Your task to perform on an android device: Open network settings Image 0: 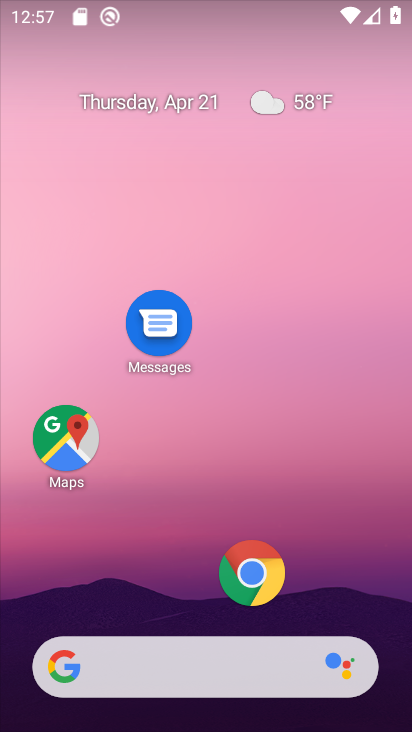
Step 0: drag from (173, 564) to (184, 89)
Your task to perform on an android device: Open network settings Image 1: 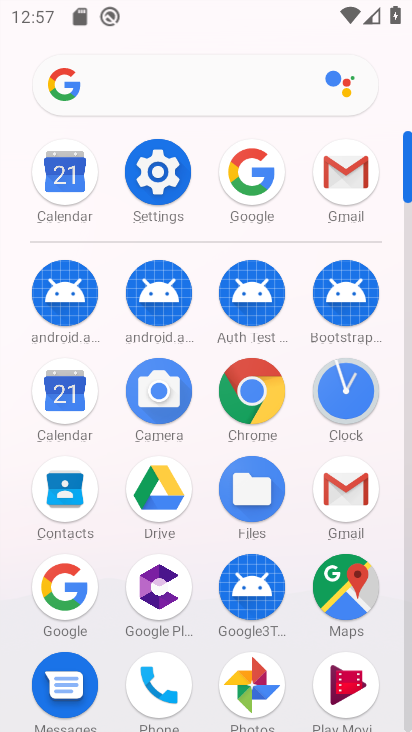
Step 1: click (161, 169)
Your task to perform on an android device: Open network settings Image 2: 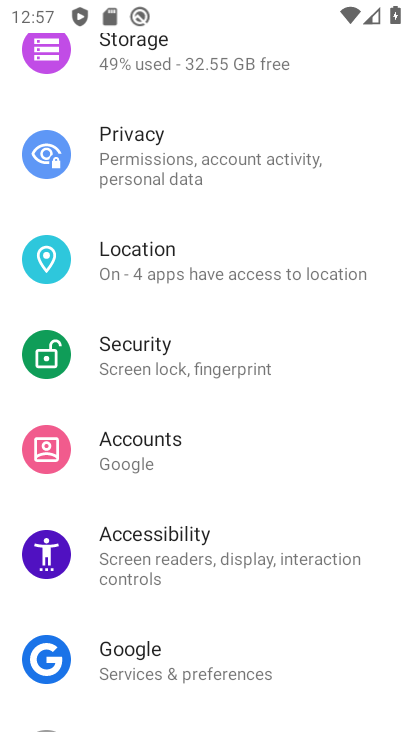
Step 2: drag from (186, 151) to (290, 715)
Your task to perform on an android device: Open network settings Image 3: 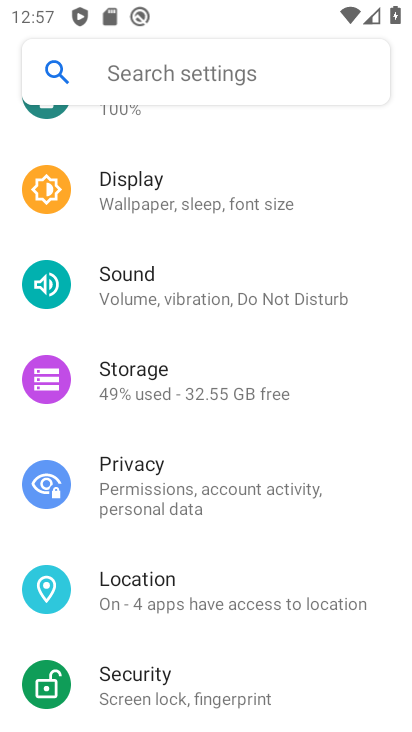
Step 3: drag from (214, 198) to (223, 711)
Your task to perform on an android device: Open network settings Image 4: 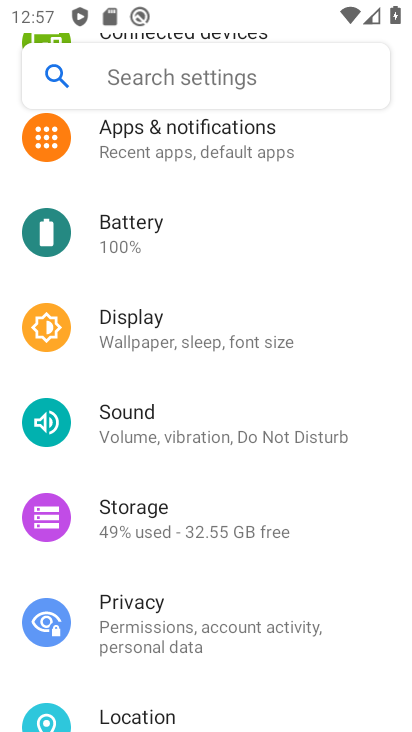
Step 4: drag from (161, 213) to (238, 711)
Your task to perform on an android device: Open network settings Image 5: 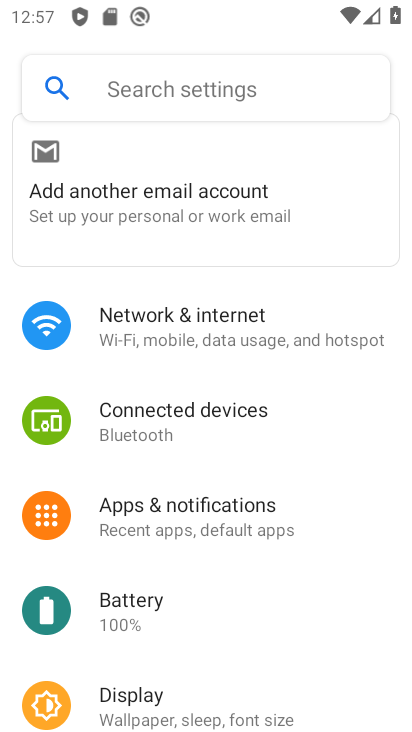
Step 5: click (193, 323)
Your task to perform on an android device: Open network settings Image 6: 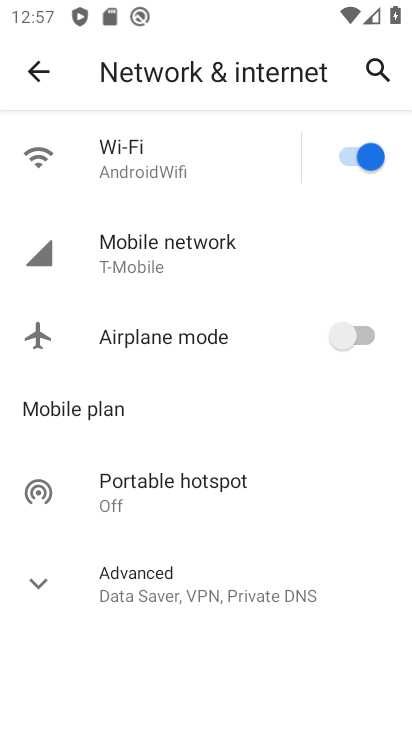
Step 6: click (154, 269)
Your task to perform on an android device: Open network settings Image 7: 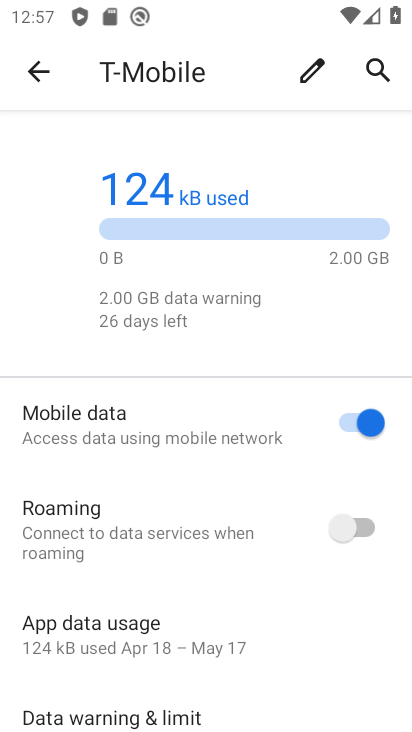
Step 7: task complete